Your task to perform on an android device: change alarm snooze length Image 0: 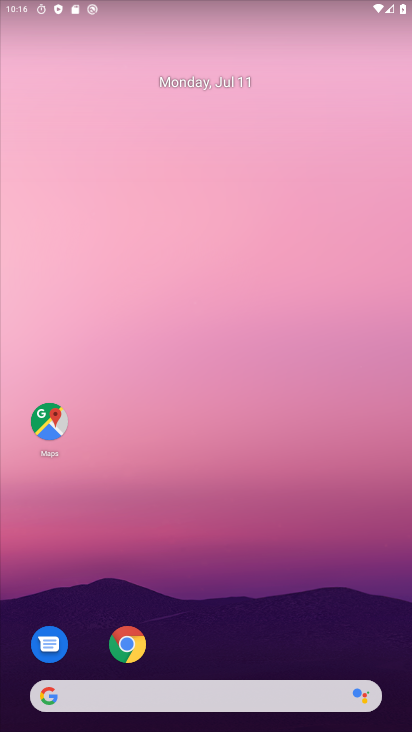
Step 0: drag from (209, 656) to (202, 113)
Your task to perform on an android device: change alarm snooze length Image 1: 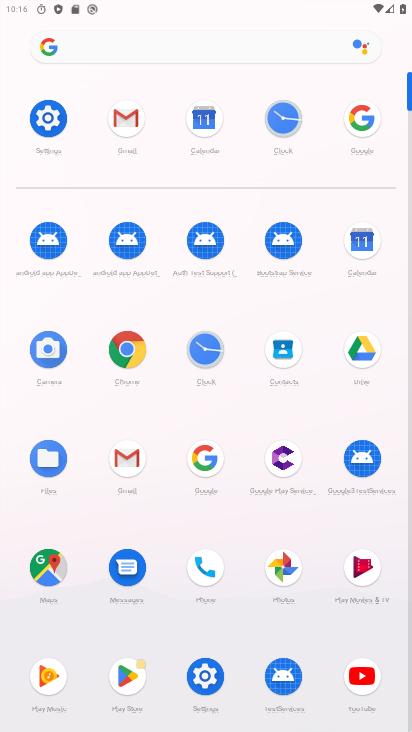
Step 1: click (206, 352)
Your task to perform on an android device: change alarm snooze length Image 2: 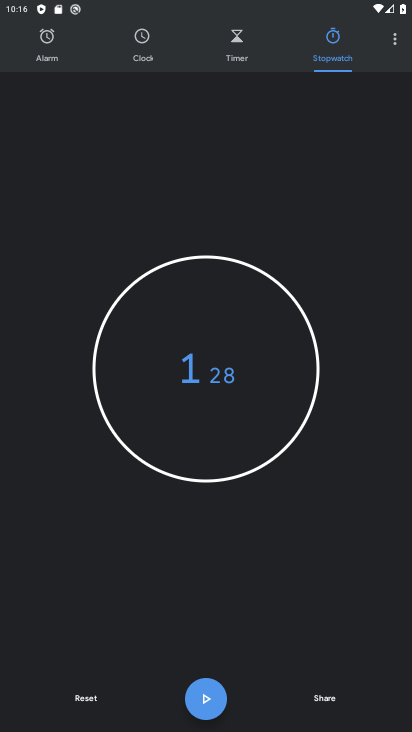
Step 2: click (389, 35)
Your task to perform on an android device: change alarm snooze length Image 3: 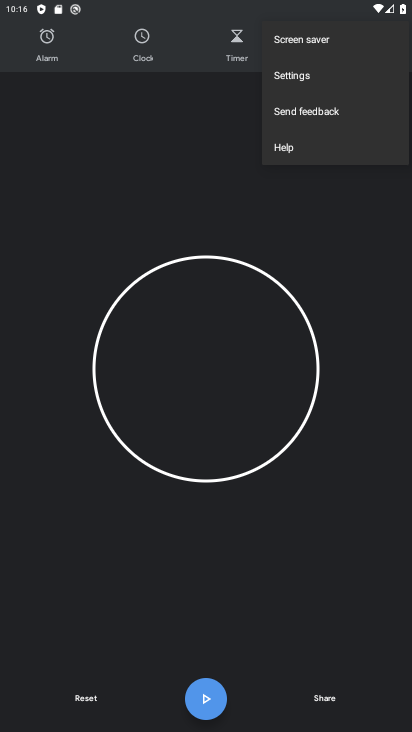
Step 3: click (278, 67)
Your task to perform on an android device: change alarm snooze length Image 4: 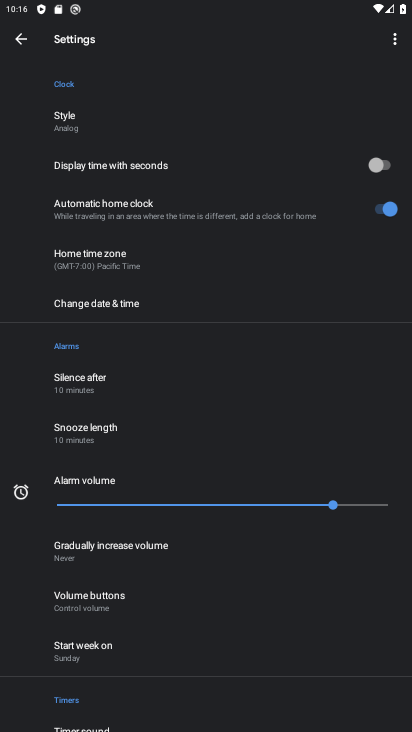
Step 4: drag from (212, 588) to (217, 625)
Your task to perform on an android device: change alarm snooze length Image 5: 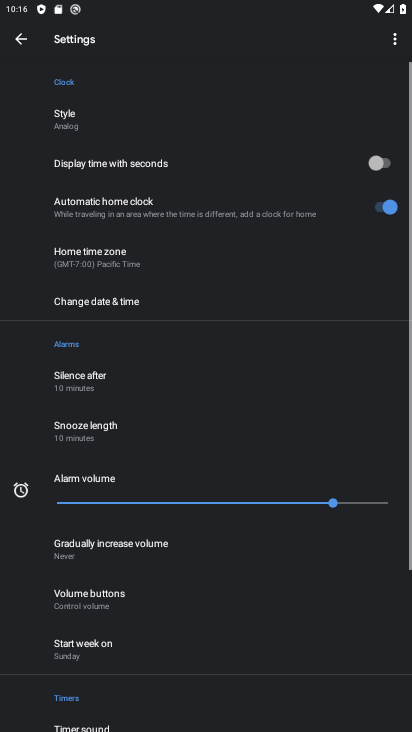
Step 5: click (100, 443)
Your task to perform on an android device: change alarm snooze length Image 6: 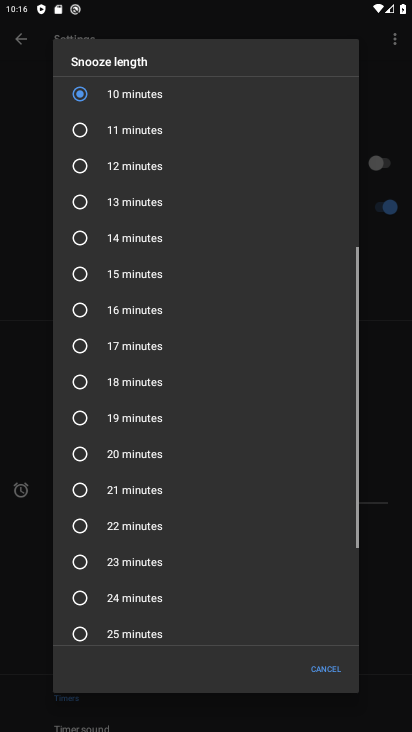
Step 6: click (80, 271)
Your task to perform on an android device: change alarm snooze length Image 7: 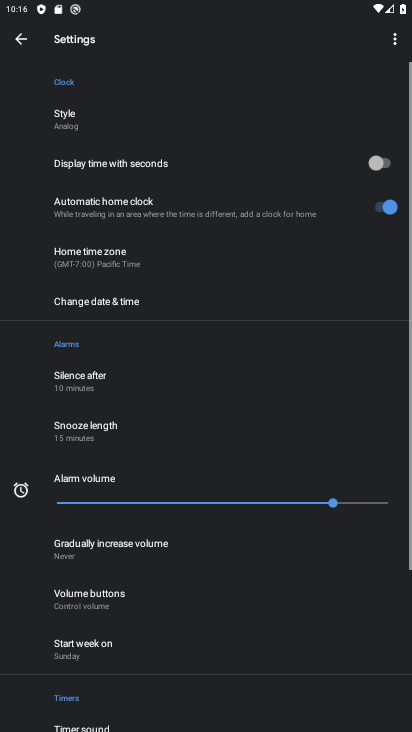
Step 7: task complete